Your task to perform on an android device: Open the stopwatch Image 0: 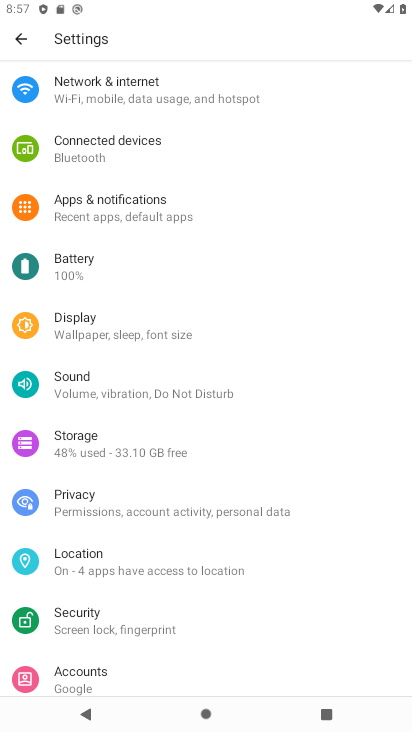
Step 0: press home button
Your task to perform on an android device: Open the stopwatch Image 1: 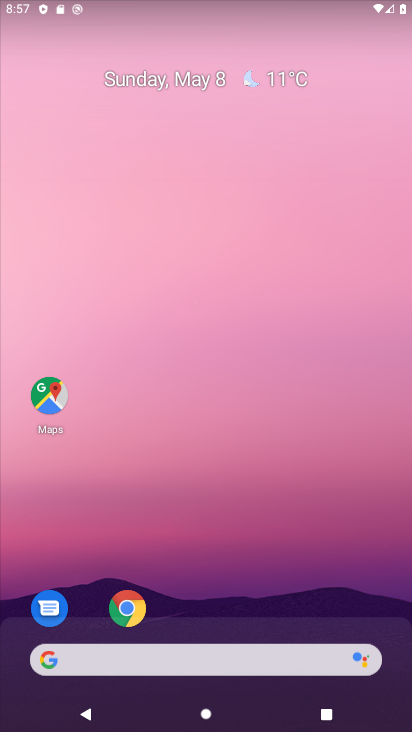
Step 1: drag from (221, 625) to (174, 10)
Your task to perform on an android device: Open the stopwatch Image 2: 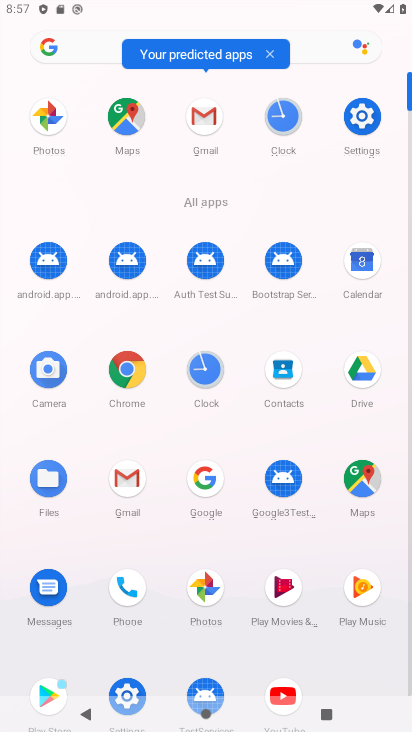
Step 2: click (196, 370)
Your task to perform on an android device: Open the stopwatch Image 3: 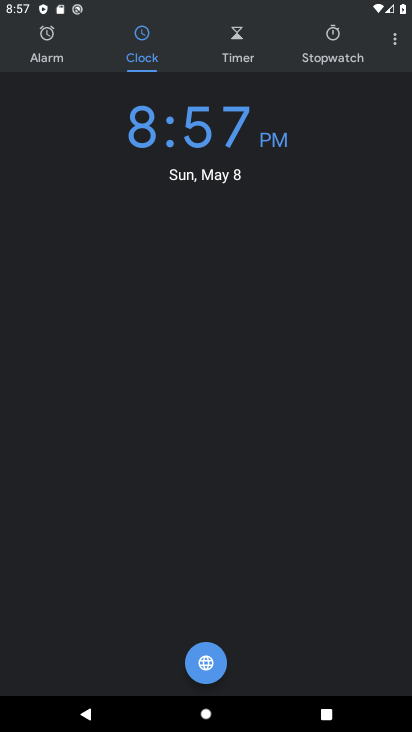
Step 3: click (313, 40)
Your task to perform on an android device: Open the stopwatch Image 4: 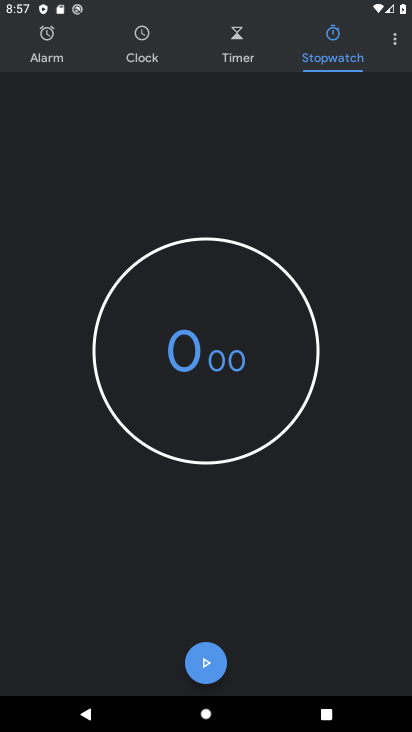
Step 4: click (203, 666)
Your task to perform on an android device: Open the stopwatch Image 5: 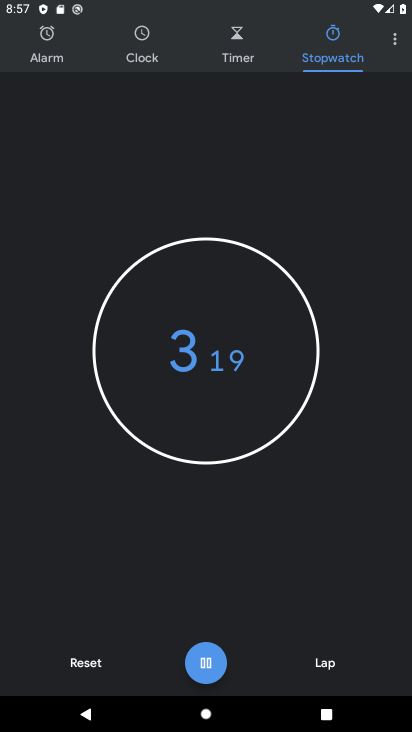
Step 5: task complete